Your task to perform on an android device: change timer sound Image 0: 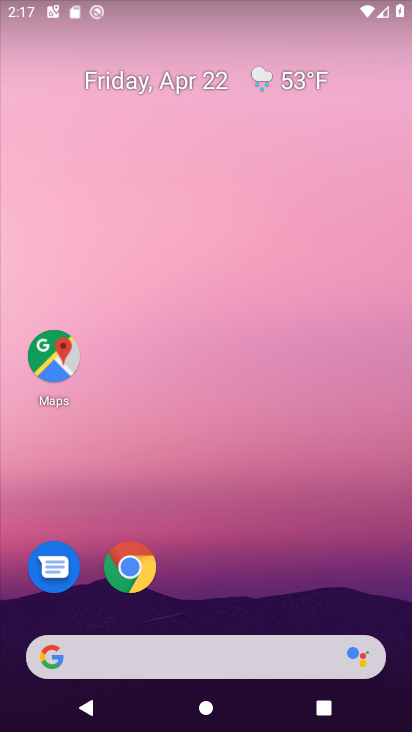
Step 0: drag from (316, 569) to (344, 75)
Your task to perform on an android device: change timer sound Image 1: 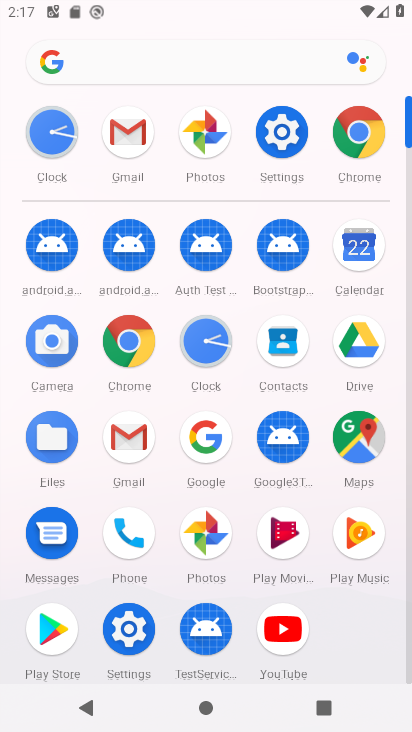
Step 1: click (285, 139)
Your task to perform on an android device: change timer sound Image 2: 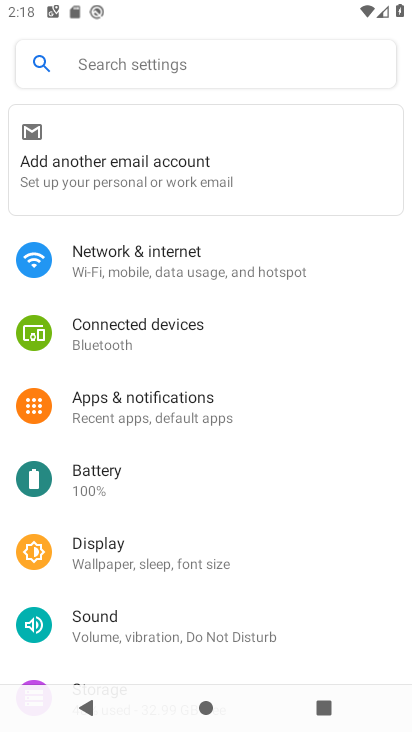
Step 2: press back button
Your task to perform on an android device: change timer sound Image 3: 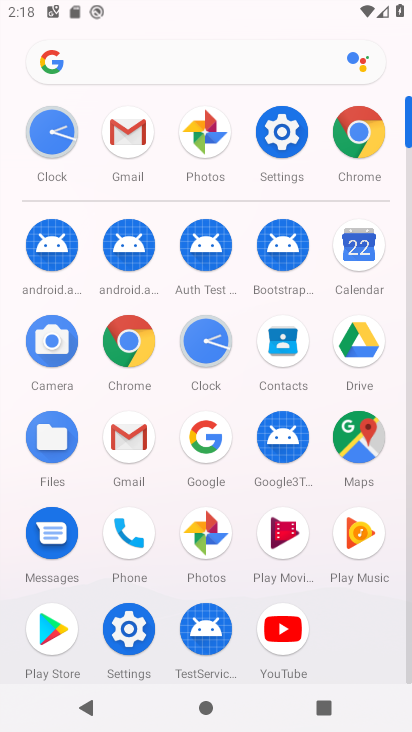
Step 3: click (57, 142)
Your task to perform on an android device: change timer sound Image 4: 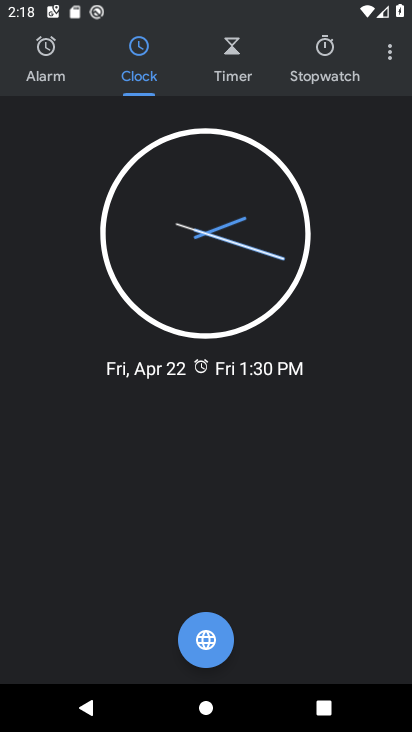
Step 4: click (391, 53)
Your task to perform on an android device: change timer sound Image 5: 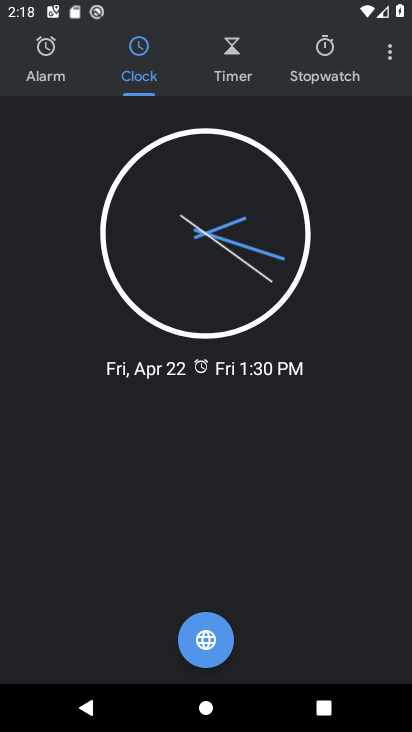
Step 5: click (391, 53)
Your task to perform on an android device: change timer sound Image 6: 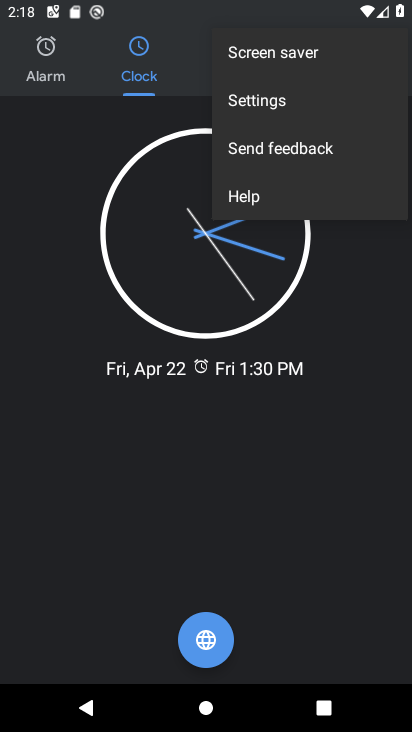
Step 6: click (313, 100)
Your task to perform on an android device: change timer sound Image 7: 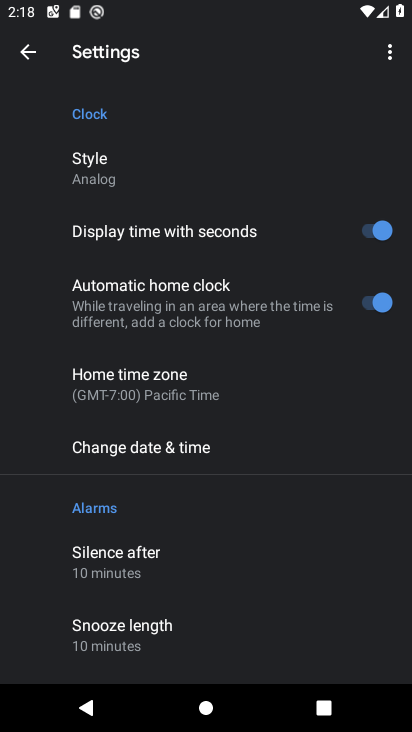
Step 7: drag from (290, 584) to (324, 157)
Your task to perform on an android device: change timer sound Image 8: 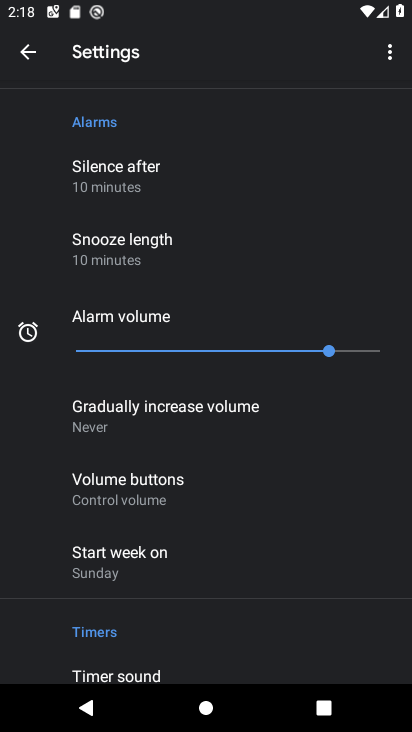
Step 8: drag from (240, 623) to (278, 239)
Your task to perform on an android device: change timer sound Image 9: 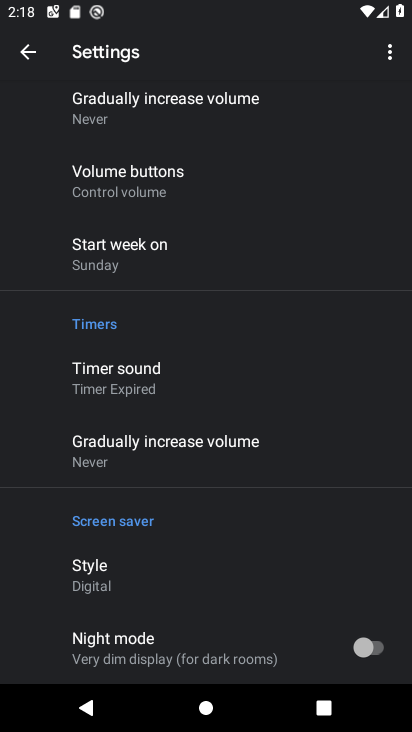
Step 9: click (159, 377)
Your task to perform on an android device: change timer sound Image 10: 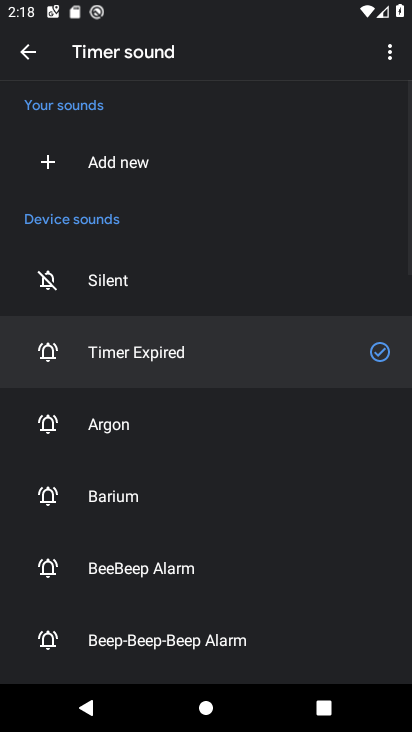
Step 10: click (154, 490)
Your task to perform on an android device: change timer sound Image 11: 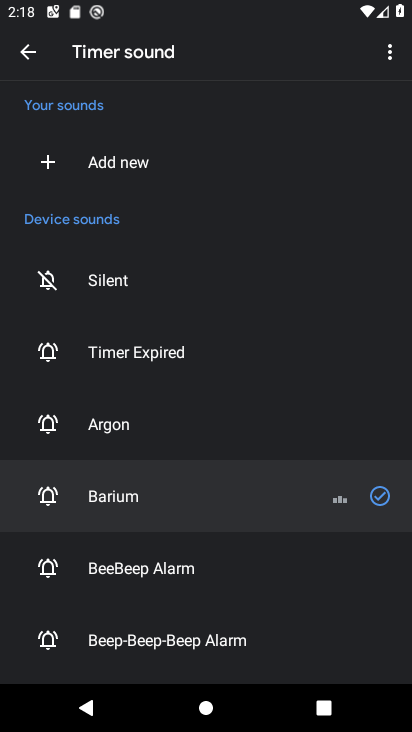
Step 11: task complete